Your task to perform on an android device: Do I have any events tomorrow? Image 0: 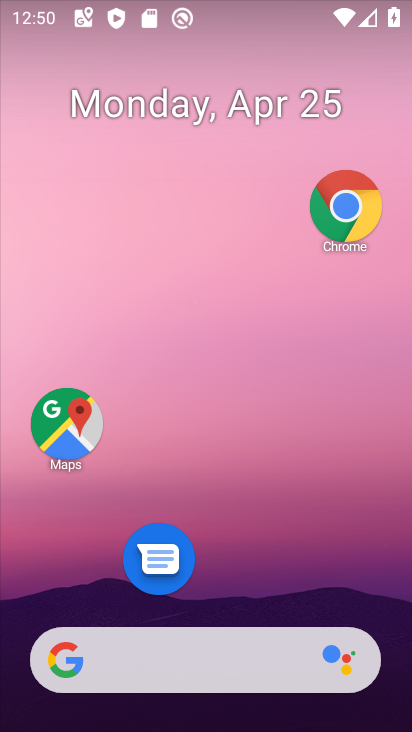
Step 0: drag from (190, 474) to (260, 68)
Your task to perform on an android device: Do I have any events tomorrow? Image 1: 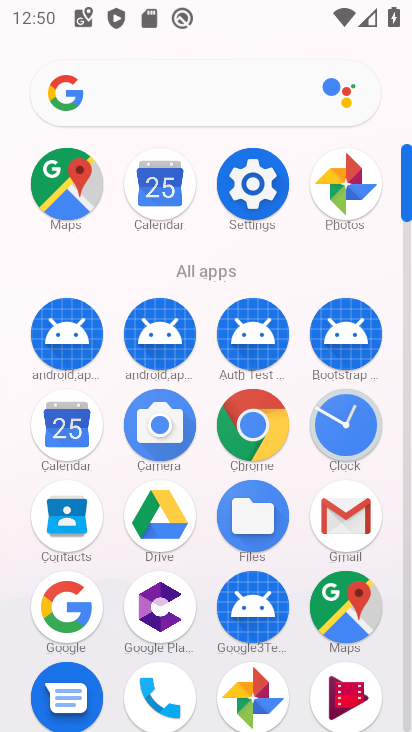
Step 1: click (61, 435)
Your task to perform on an android device: Do I have any events tomorrow? Image 2: 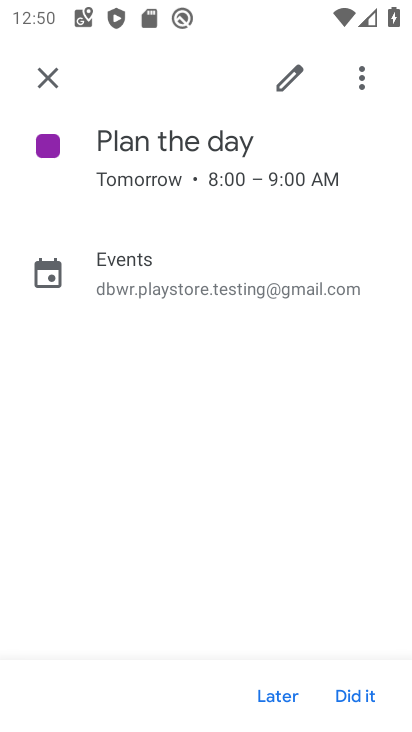
Step 2: click (46, 69)
Your task to perform on an android device: Do I have any events tomorrow? Image 3: 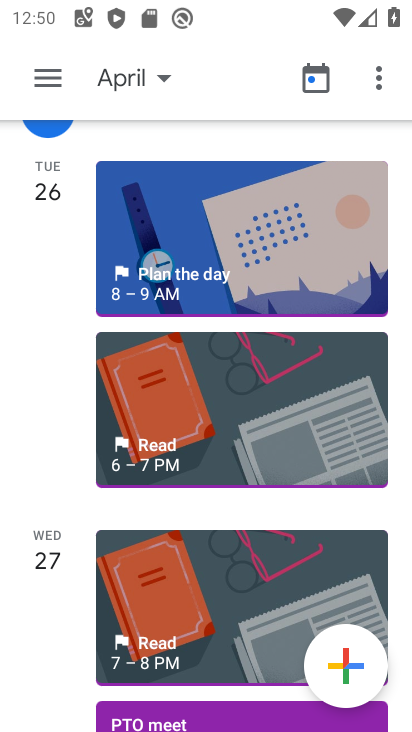
Step 3: drag from (195, 608) to (210, 655)
Your task to perform on an android device: Do I have any events tomorrow? Image 4: 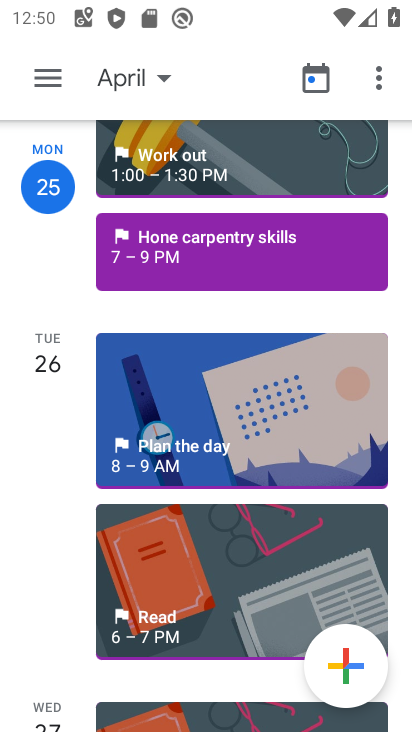
Step 4: click (168, 589)
Your task to perform on an android device: Do I have any events tomorrow? Image 5: 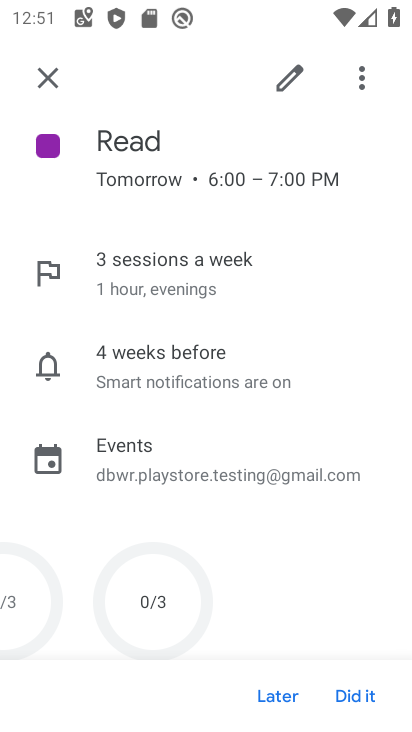
Step 5: task complete